Your task to perform on an android device: turn off notifications in google photos Image 0: 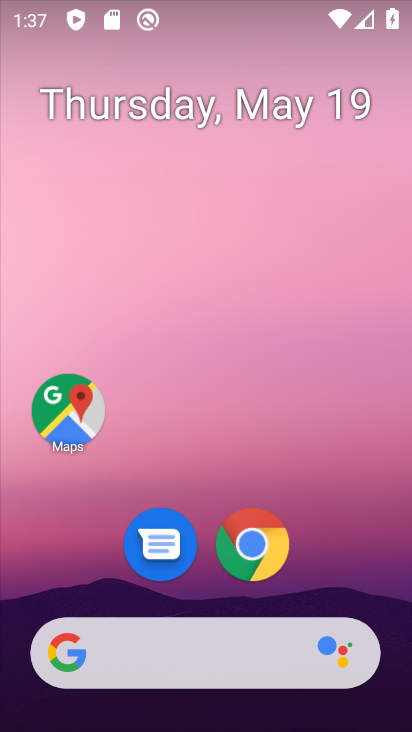
Step 0: press home button
Your task to perform on an android device: turn off notifications in google photos Image 1: 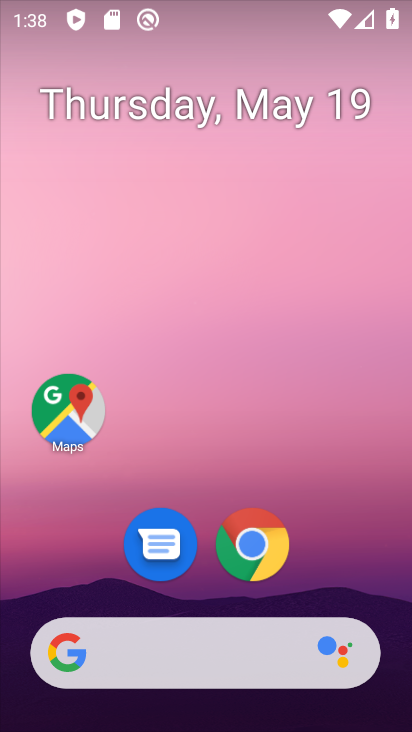
Step 1: drag from (264, 704) to (356, 83)
Your task to perform on an android device: turn off notifications in google photos Image 2: 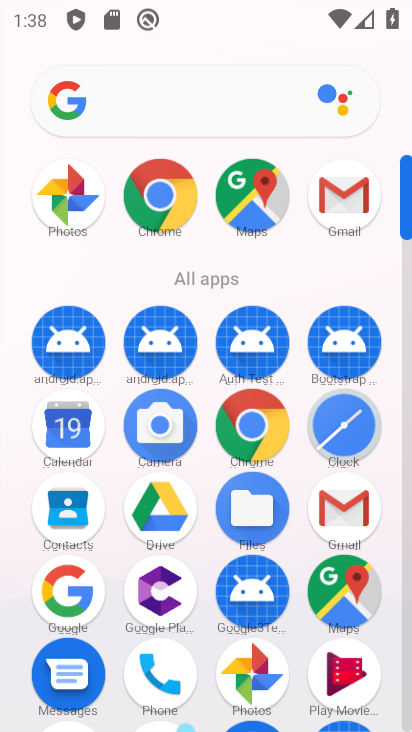
Step 2: click (252, 648)
Your task to perform on an android device: turn off notifications in google photos Image 3: 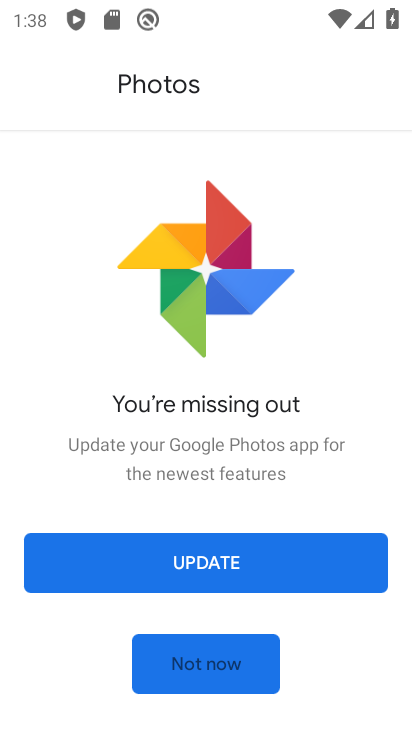
Step 3: click (260, 553)
Your task to perform on an android device: turn off notifications in google photos Image 4: 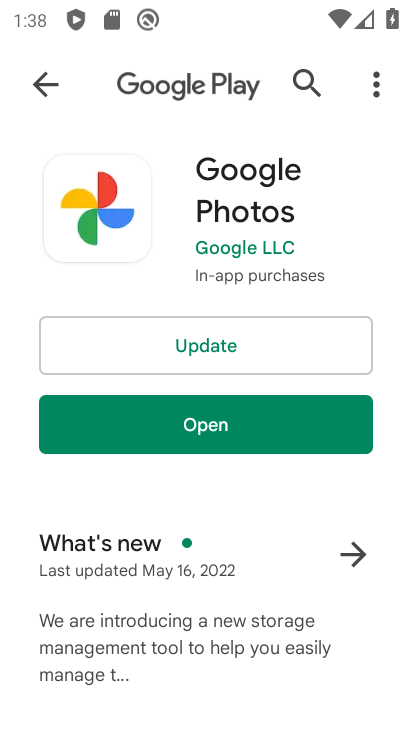
Step 4: click (205, 347)
Your task to perform on an android device: turn off notifications in google photos Image 5: 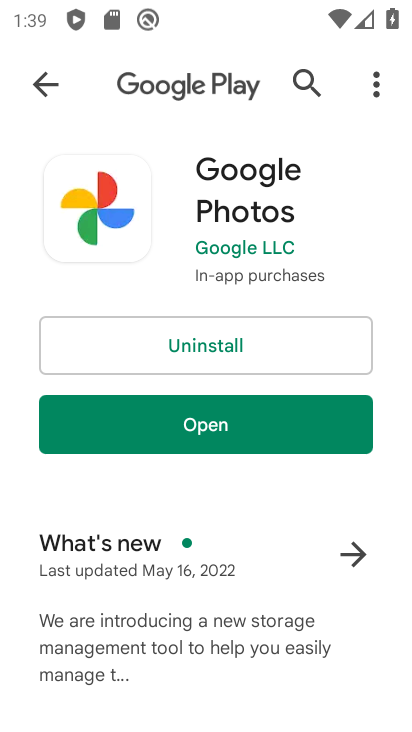
Step 5: click (230, 436)
Your task to perform on an android device: turn off notifications in google photos Image 6: 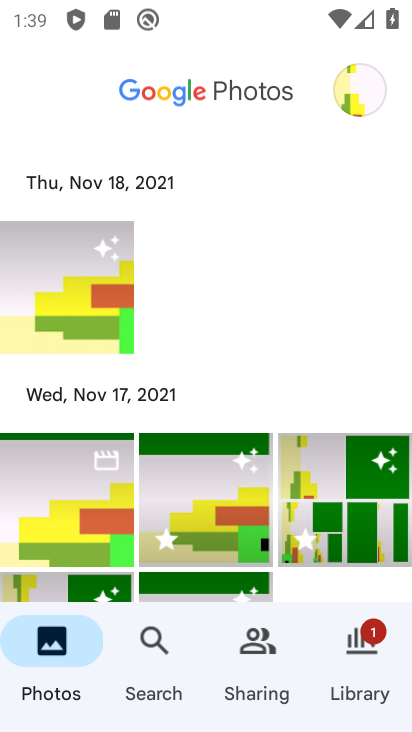
Step 6: click (369, 100)
Your task to perform on an android device: turn off notifications in google photos Image 7: 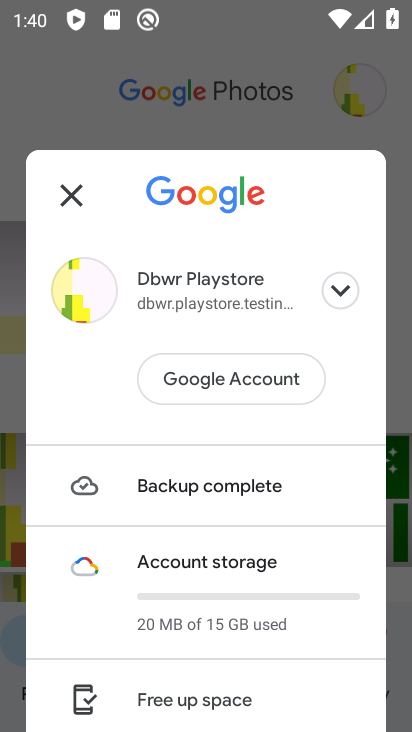
Step 7: drag from (236, 381) to (221, 585)
Your task to perform on an android device: turn off notifications in google photos Image 8: 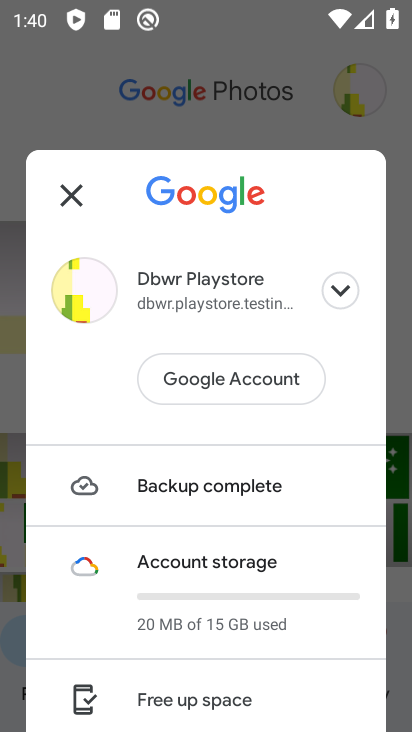
Step 8: drag from (280, 603) to (380, 215)
Your task to perform on an android device: turn off notifications in google photos Image 9: 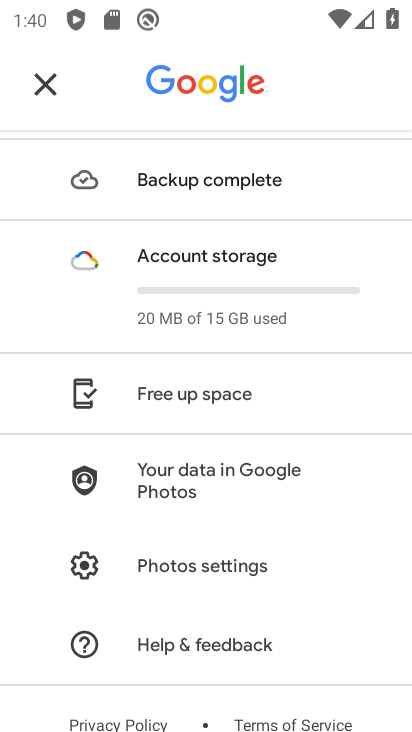
Step 9: click (195, 560)
Your task to perform on an android device: turn off notifications in google photos Image 10: 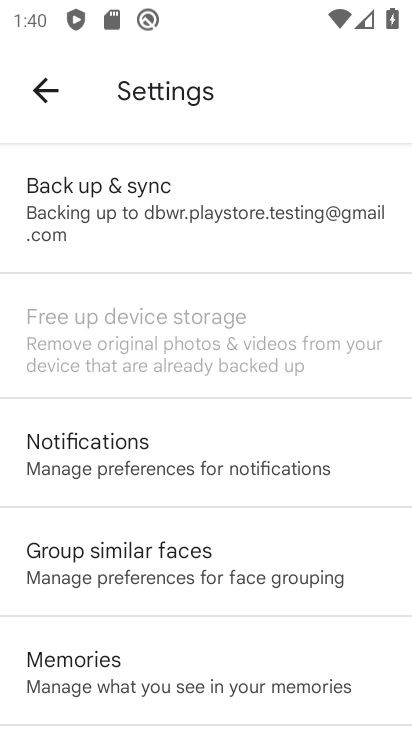
Step 10: click (138, 463)
Your task to perform on an android device: turn off notifications in google photos Image 11: 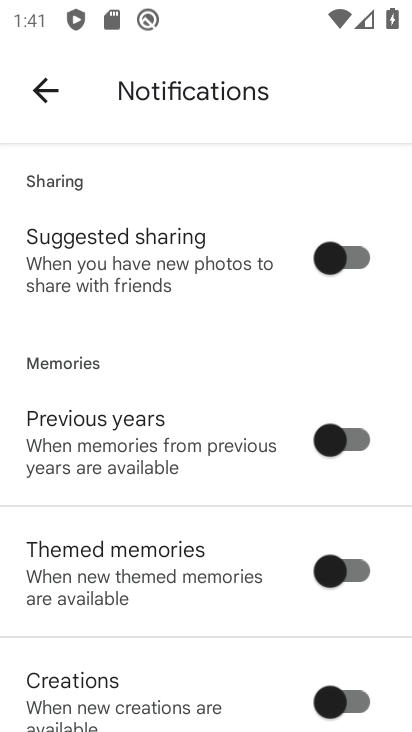
Step 11: drag from (80, 686) to (101, 200)
Your task to perform on an android device: turn off notifications in google photos Image 12: 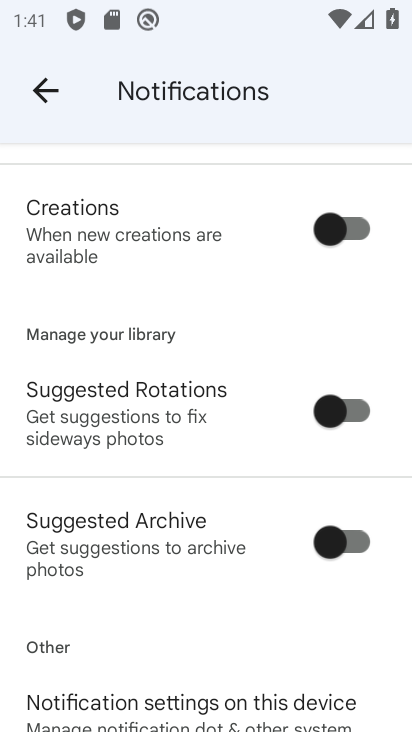
Step 12: click (131, 707)
Your task to perform on an android device: turn off notifications in google photos Image 13: 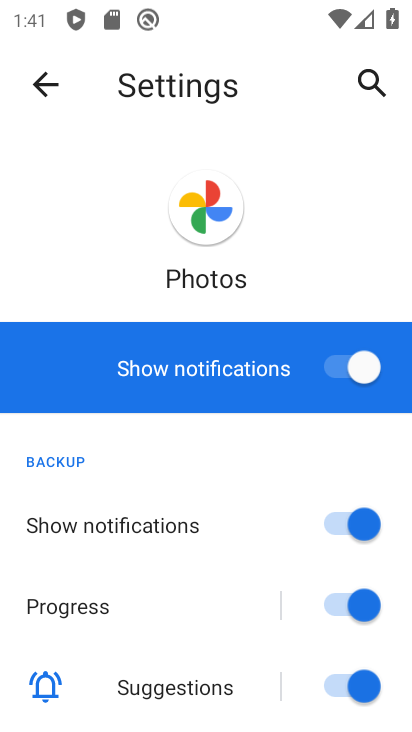
Step 13: click (366, 366)
Your task to perform on an android device: turn off notifications in google photos Image 14: 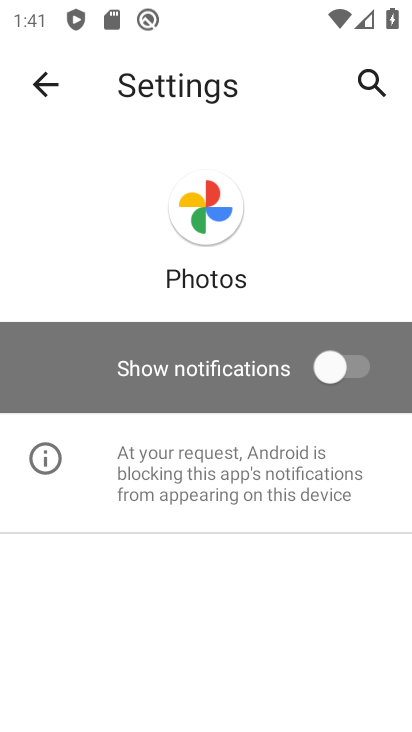
Step 14: task complete